Your task to perform on an android device: allow notifications from all sites in the chrome app Image 0: 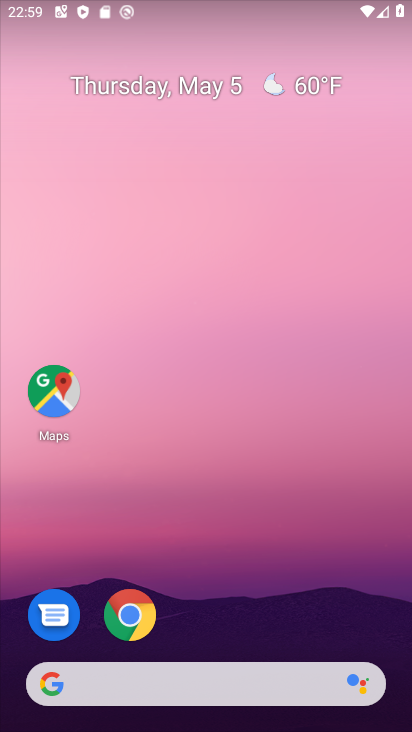
Step 0: click (133, 610)
Your task to perform on an android device: allow notifications from all sites in the chrome app Image 1: 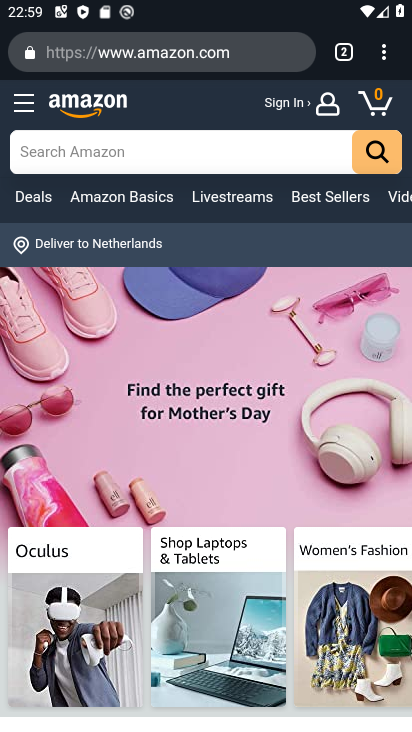
Step 1: click (376, 53)
Your task to perform on an android device: allow notifications from all sites in the chrome app Image 2: 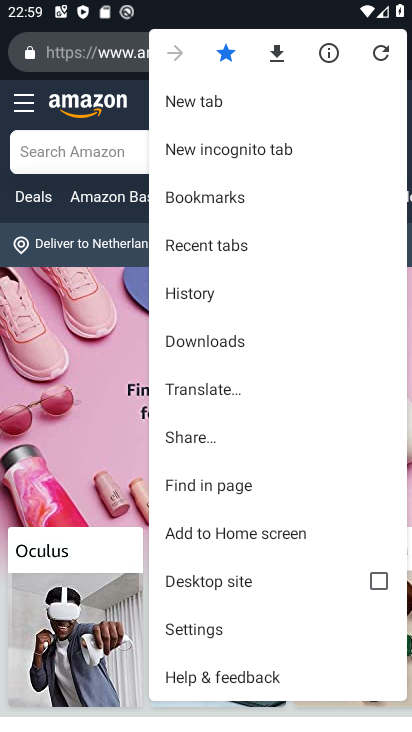
Step 2: click (212, 623)
Your task to perform on an android device: allow notifications from all sites in the chrome app Image 3: 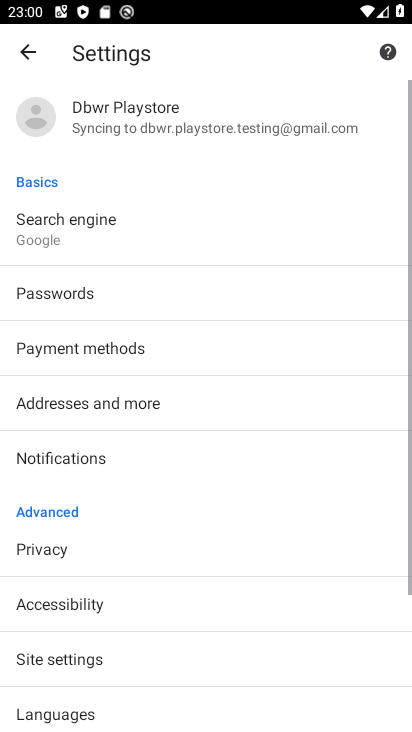
Step 3: drag from (186, 521) to (195, 220)
Your task to perform on an android device: allow notifications from all sites in the chrome app Image 4: 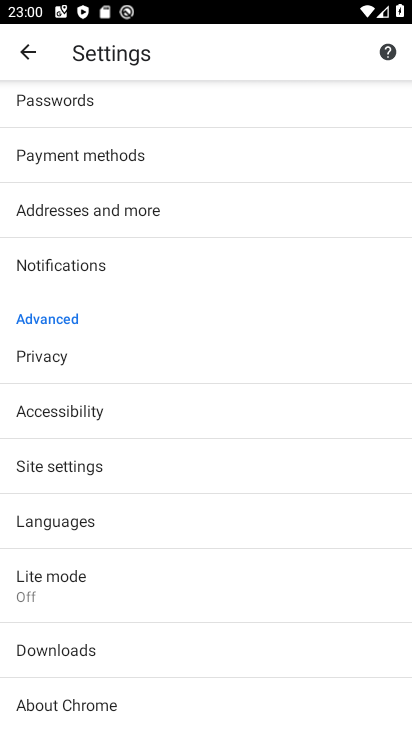
Step 4: drag from (182, 568) to (149, 184)
Your task to perform on an android device: allow notifications from all sites in the chrome app Image 5: 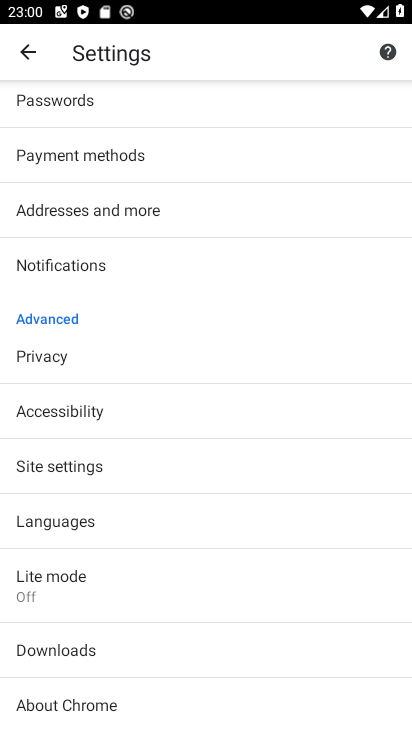
Step 5: click (58, 460)
Your task to perform on an android device: allow notifications from all sites in the chrome app Image 6: 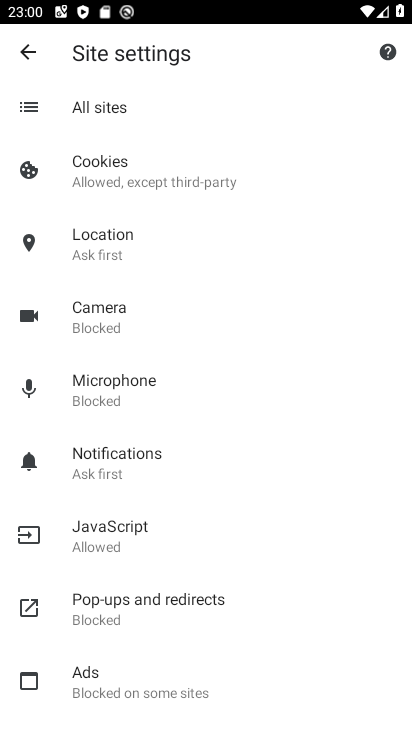
Step 6: click (159, 472)
Your task to perform on an android device: allow notifications from all sites in the chrome app Image 7: 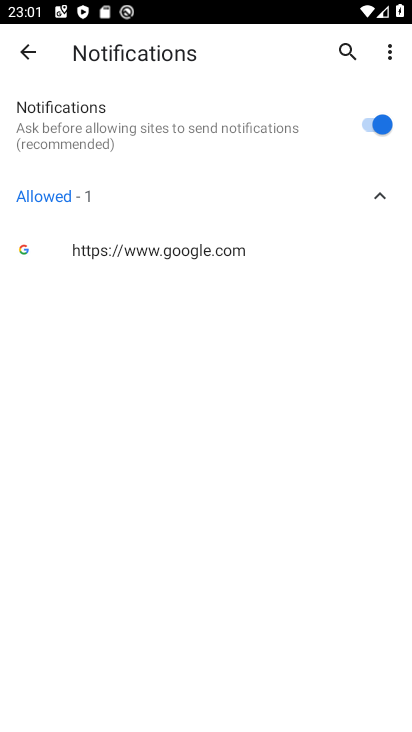
Step 7: task complete